Your task to perform on an android device: Search for vegetarian restaurants on Maps Image 0: 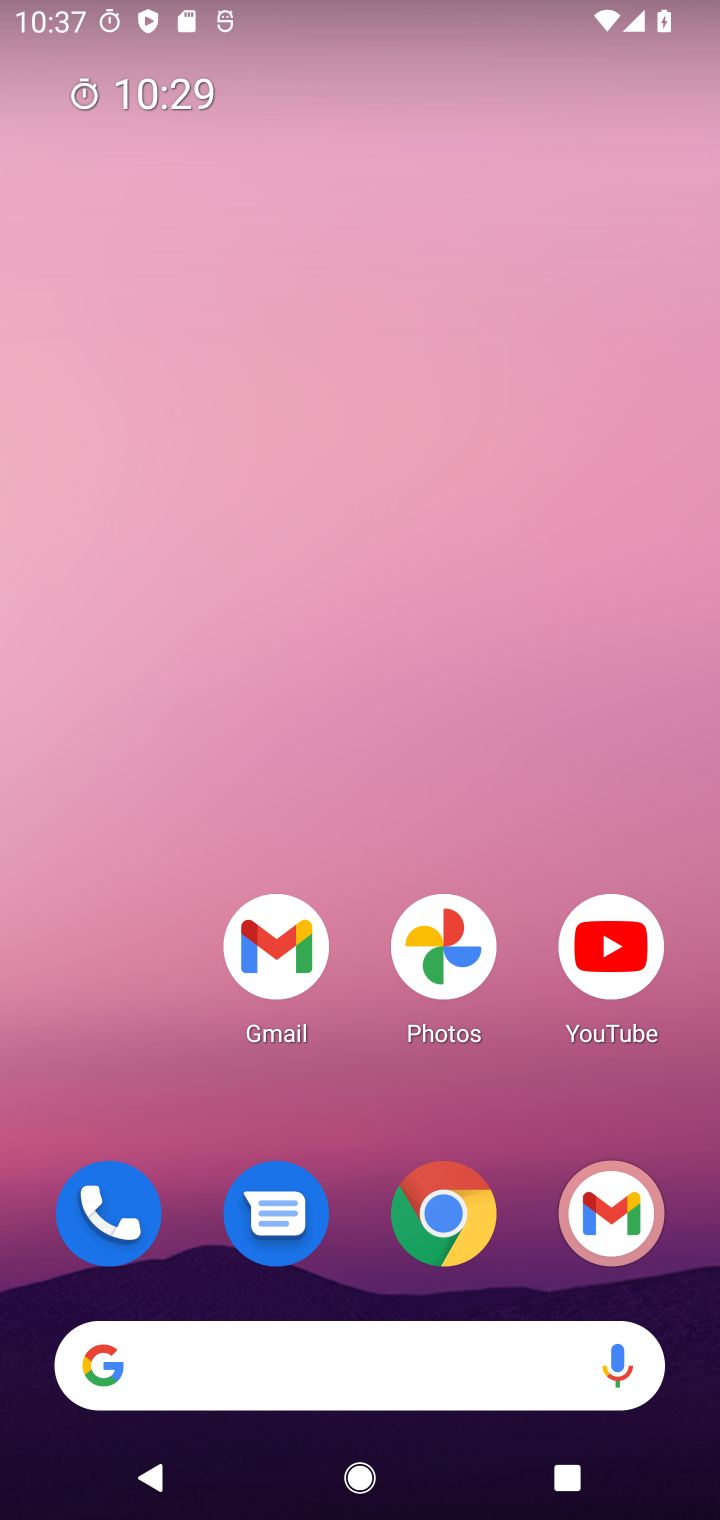
Step 0: drag from (387, 1095) to (363, 175)
Your task to perform on an android device: Search for vegetarian restaurants on Maps Image 1: 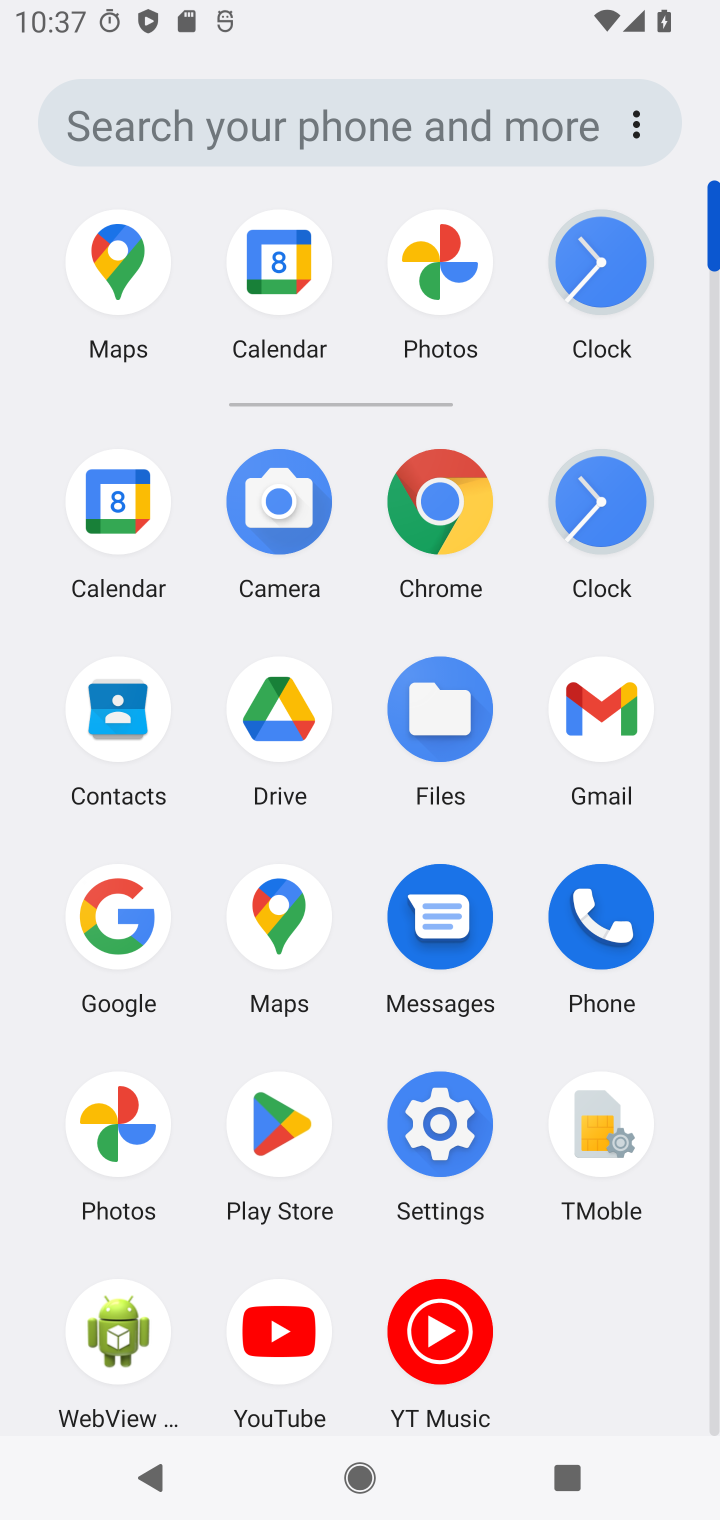
Step 1: click (282, 922)
Your task to perform on an android device: Search for vegetarian restaurants on Maps Image 2: 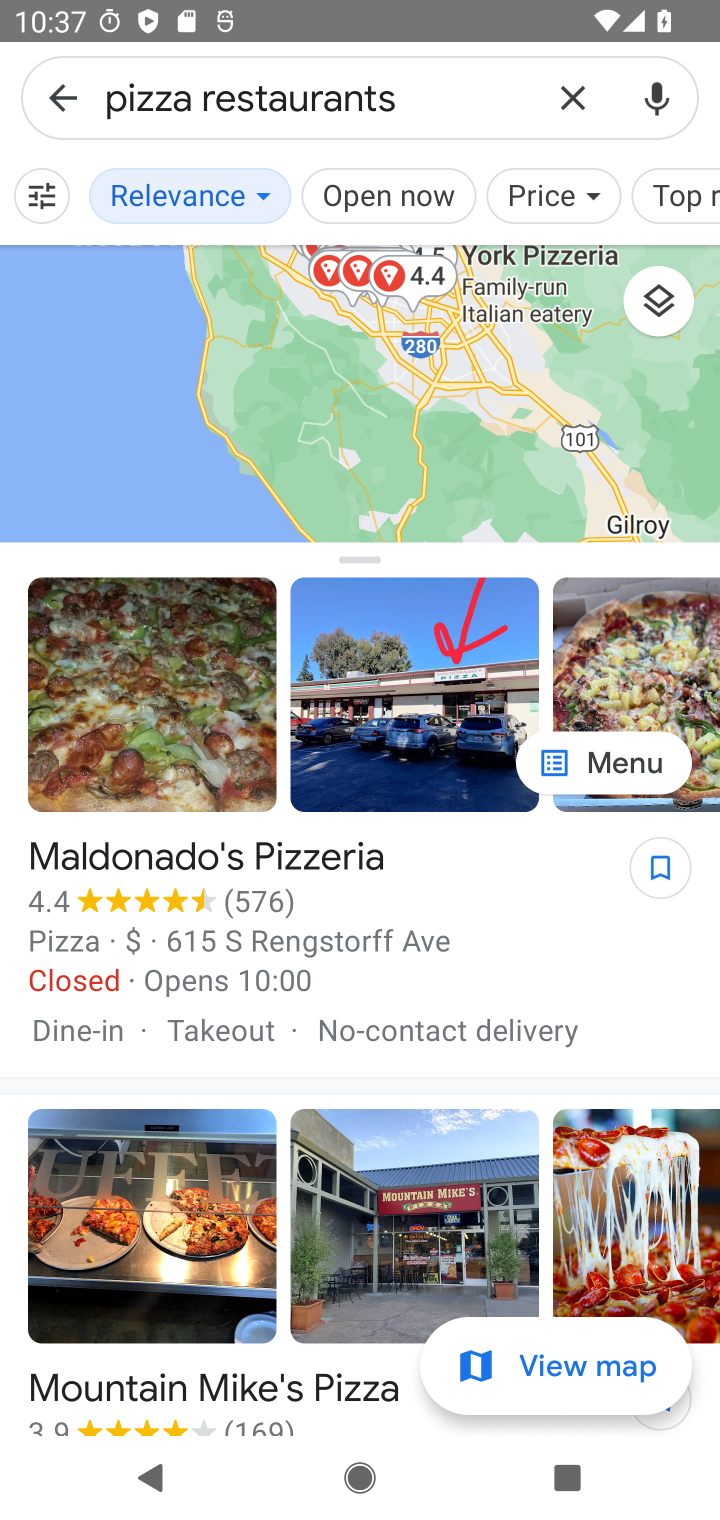
Step 2: click (555, 87)
Your task to perform on an android device: Search for vegetarian restaurants on Maps Image 3: 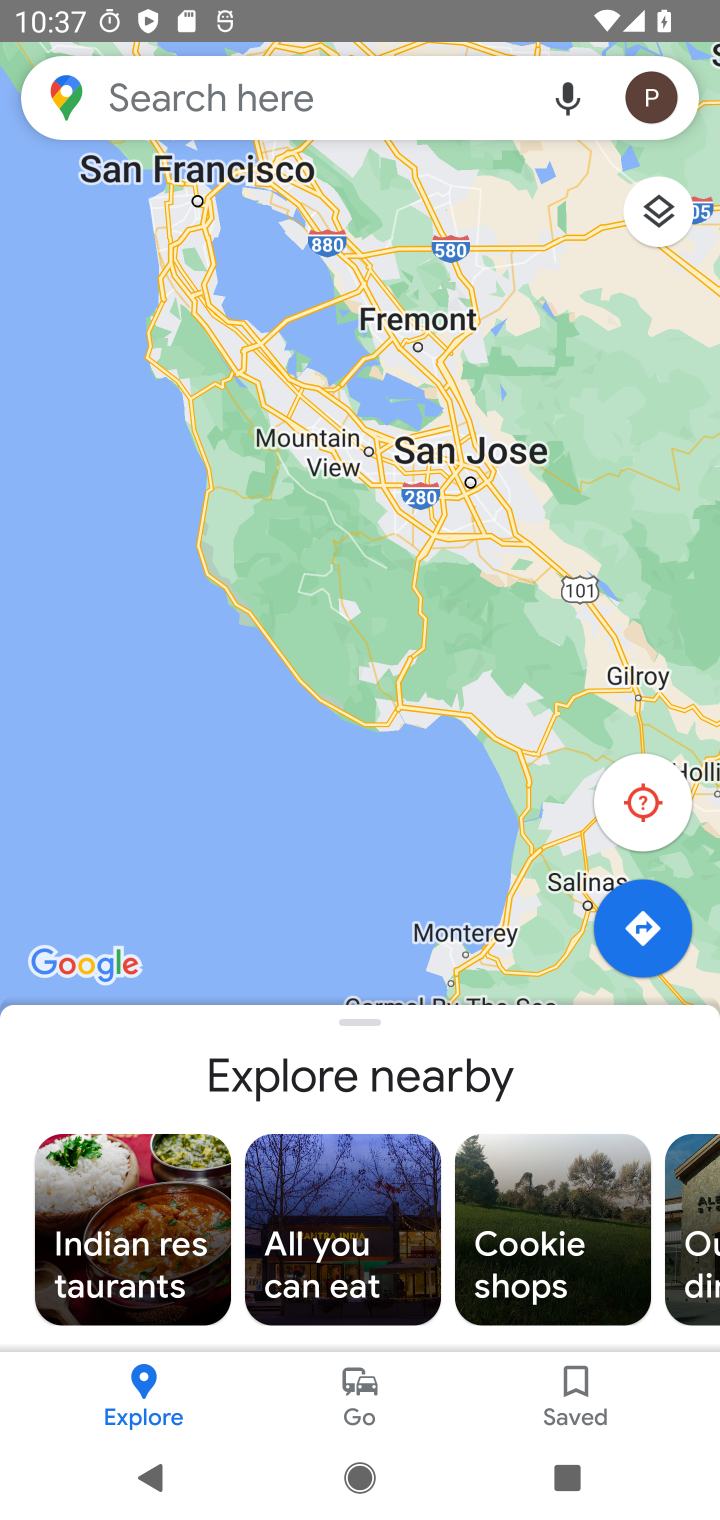
Step 3: click (305, 99)
Your task to perform on an android device: Search for vegetarian restaurants on Maps Image 4: 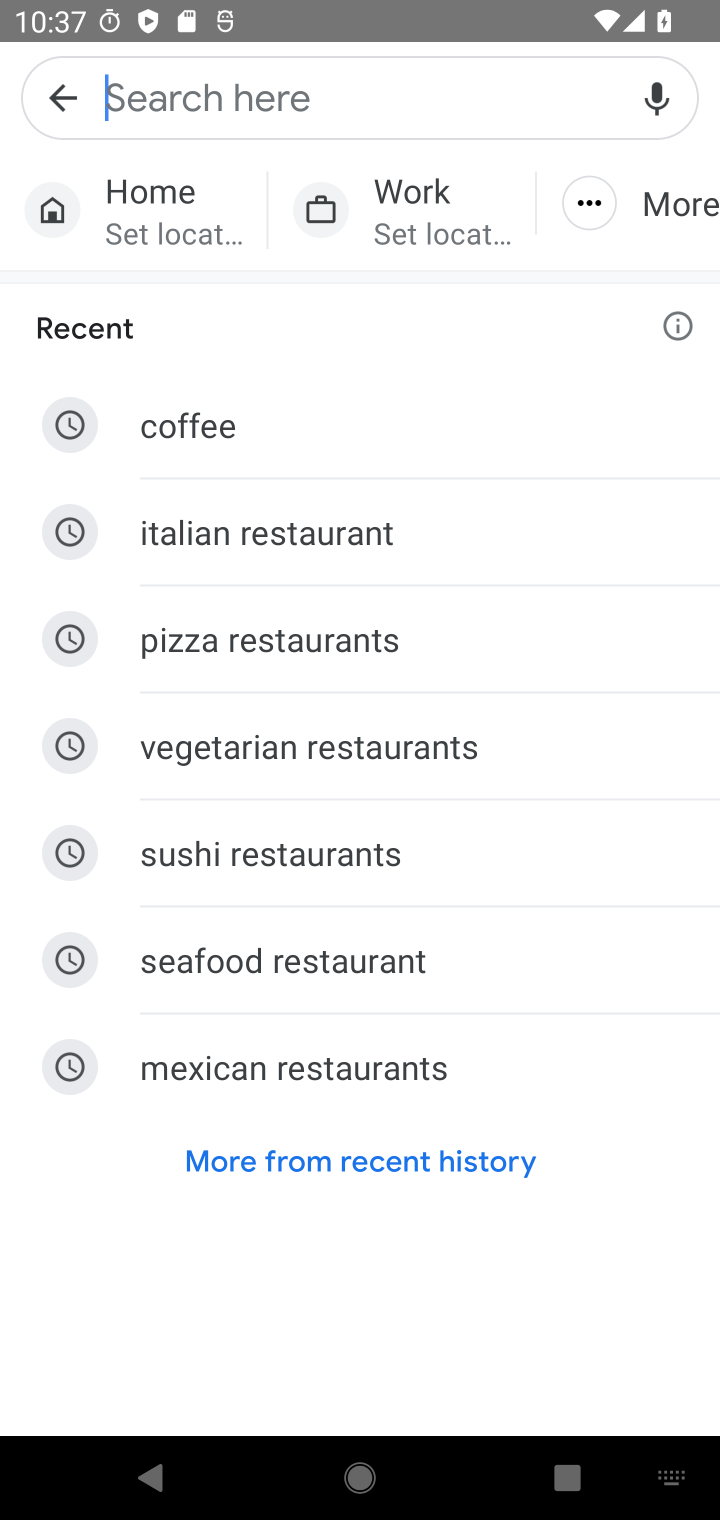
Step 4: click (367, 764)
Your task to perform on an android device: Search for vegetarian restaurants on Maps Image 5: 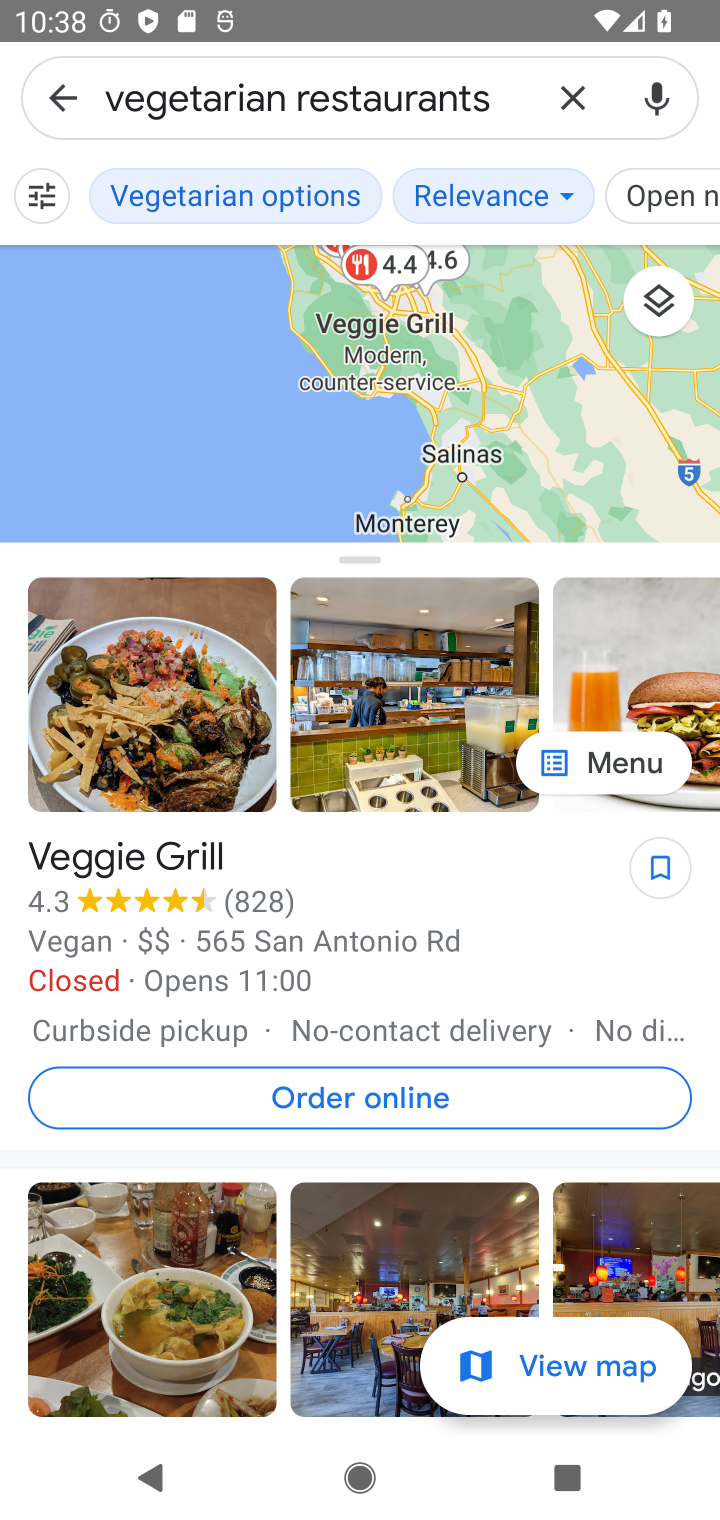
Step 5: task complete